Your task to perform on an android device: turn off location history Image 0: 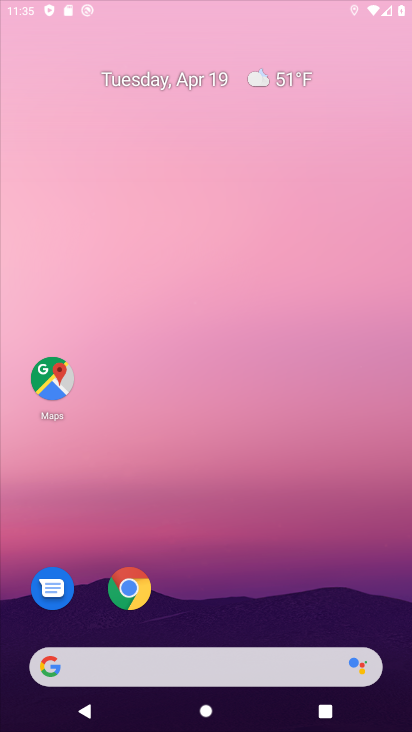
Step 0: drag from (195, 570) to (220, 56)
Your task to perform on an android device: turn off location history Image 1: 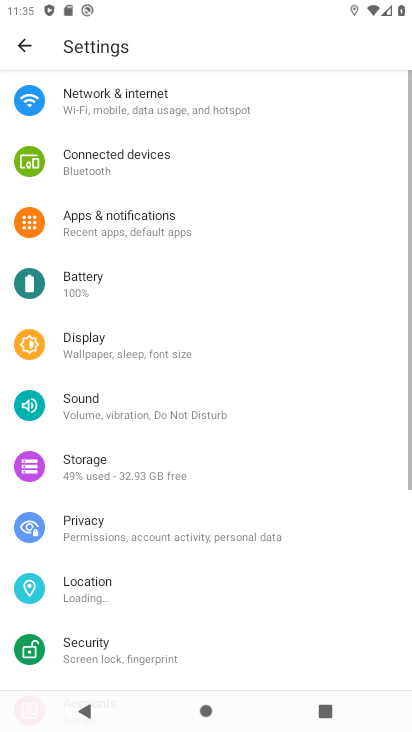
Step 1: press home button
Your task to perform on an android device: turn off location history Image 2: 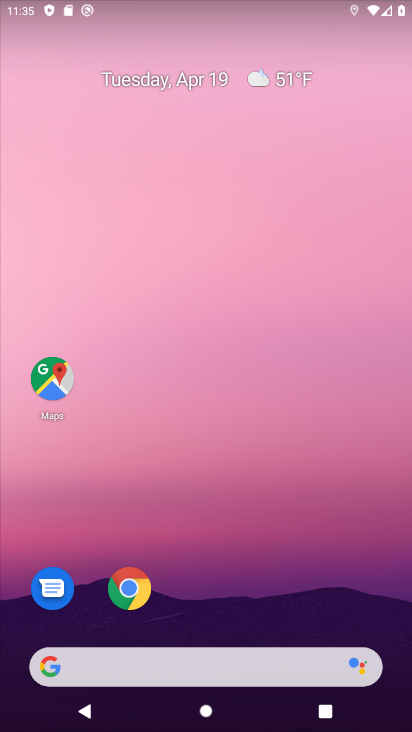
Step 2: drag from (223, 413) to (249, 75)
Your task to perform on an android device: turn off location history Image 3: 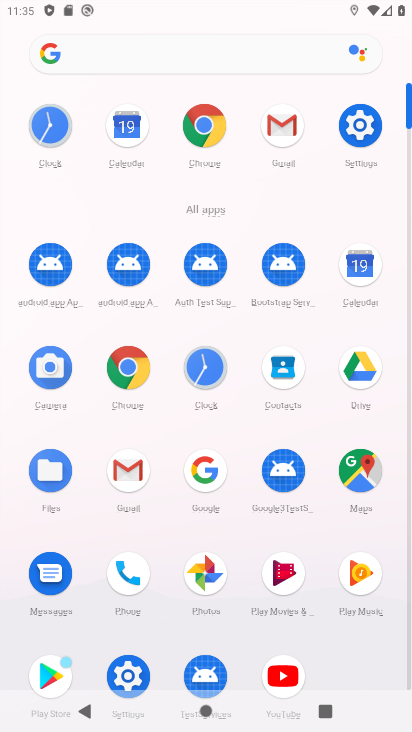
Step 3: click (125, 673)
Your task to perform on an android device: turn off location history Image 4: 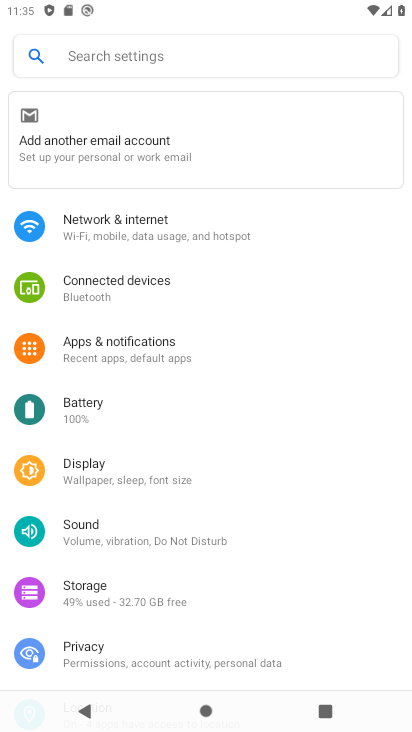
Step 4: drag from (142, 599) to (157, 104)
Your task to perform on an android device: turn off location history Image 5: 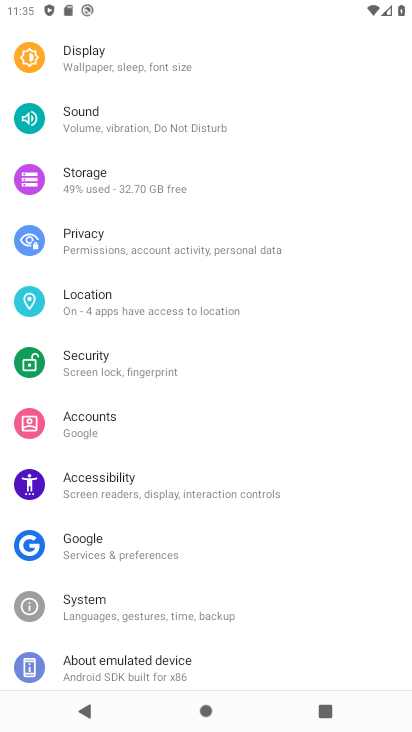
Step 5: click (124, 293)
Your task to perform on an android device: turn off location history Image 6: 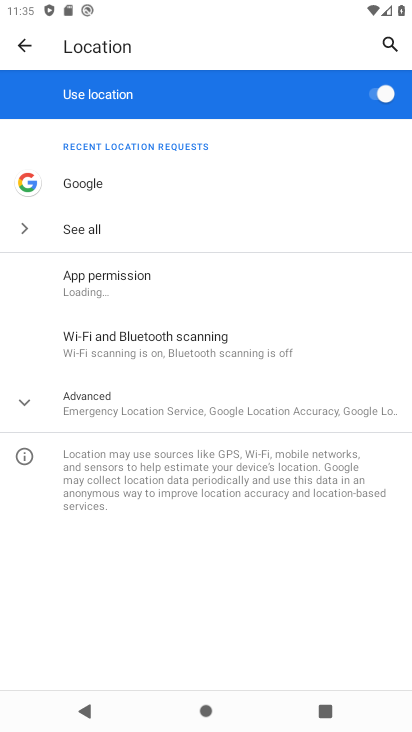
Step 6: click (19, 400)
Your task to perform on an android device: turn off location history Image 7: 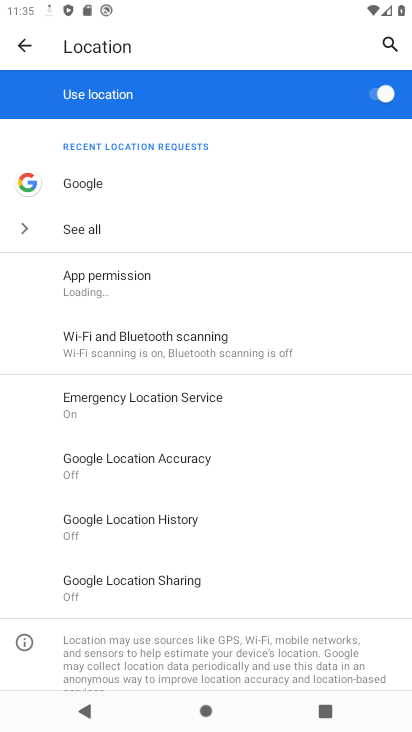
Step 7: click (148, 530)
Your task to perform on an android device: turn off location history Image 8: 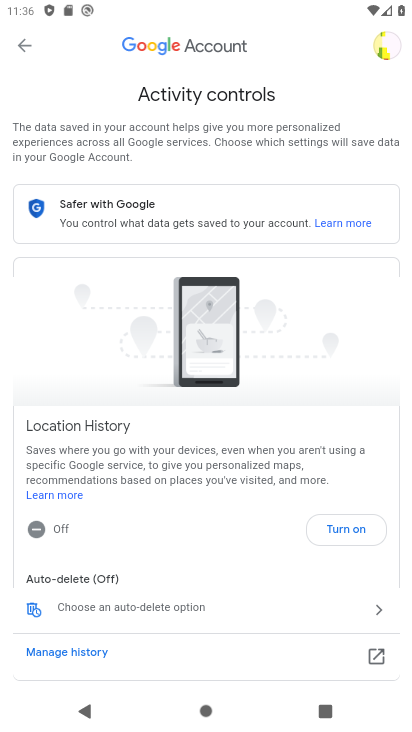
Step 8: task complete